Your task to perform on an android device: change text size in settings app Image 0: 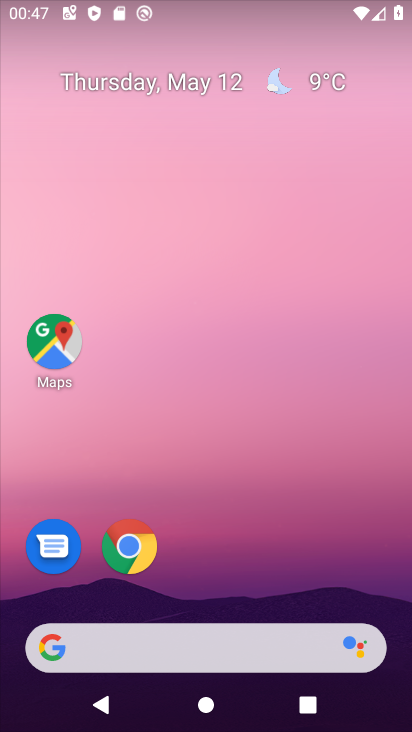
Step 0: drag from (205, 608) to (188, 205)
Your task to perform on an android device: change text size in settings app Image 1: 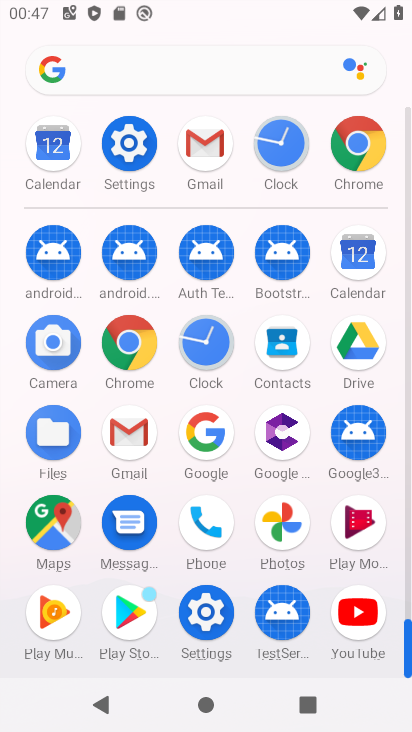
Step 1: click (206, 617)
Your task to perform on an android device: change text size in settings app Image 2: 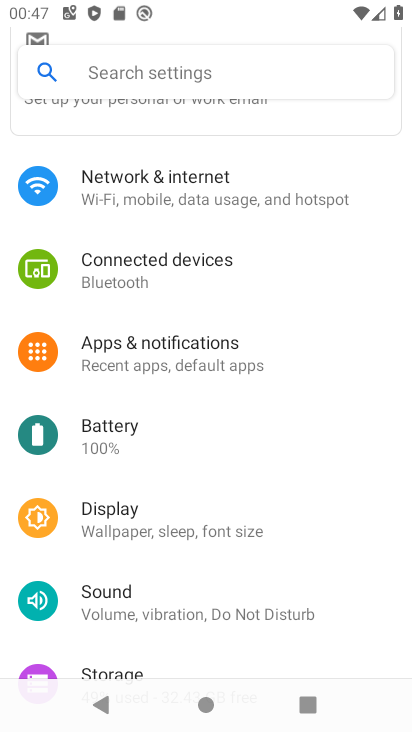
Step 2: click (150, 517)
Your task to perform on an android device: change text size in settings app Image 3: 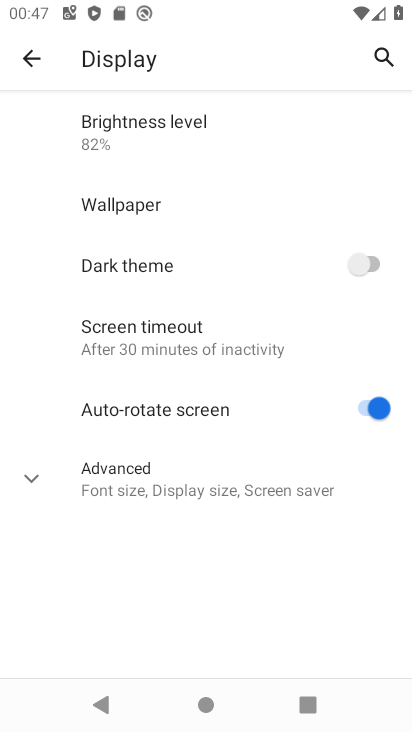
Step 3: click (117, 468)
Your task to perform on an android device: change text size in settings app Image 4: 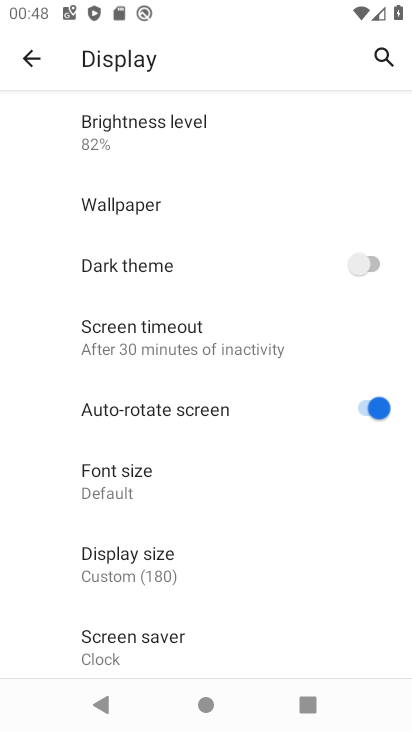
Step 4: click (132, 482)
Your task to perform on an android device: change text size in settings app Image 5: 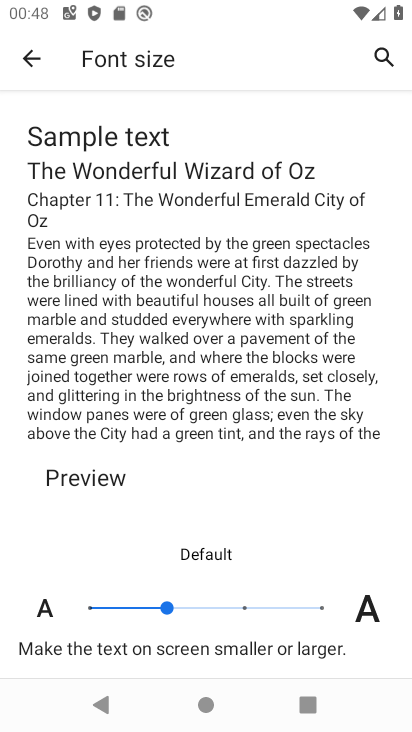
Step 5: task complete